Your task to perform on an android device: add a contact Image 0: 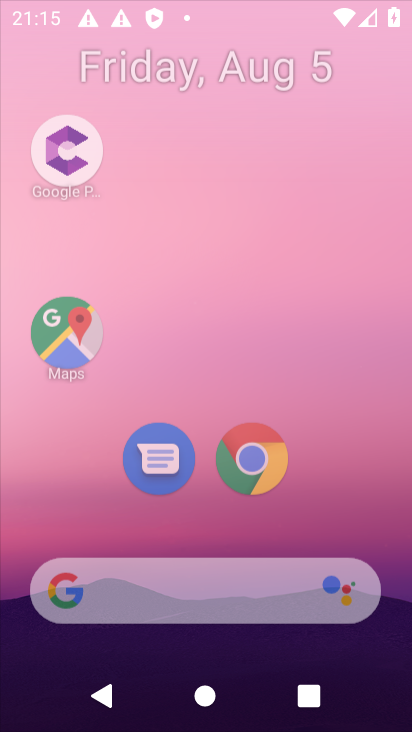
Step 0: click (218, 556)
Your task to perform on an android device: add a contact Image 1: 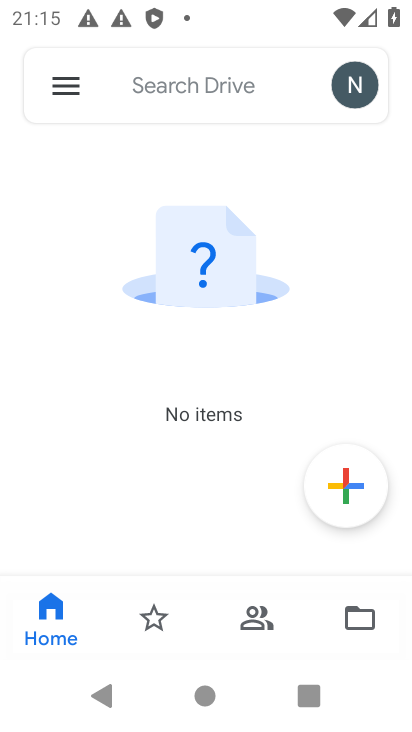
Step 1: press back button
Your task to perform on an android device: add a contact Image 2: 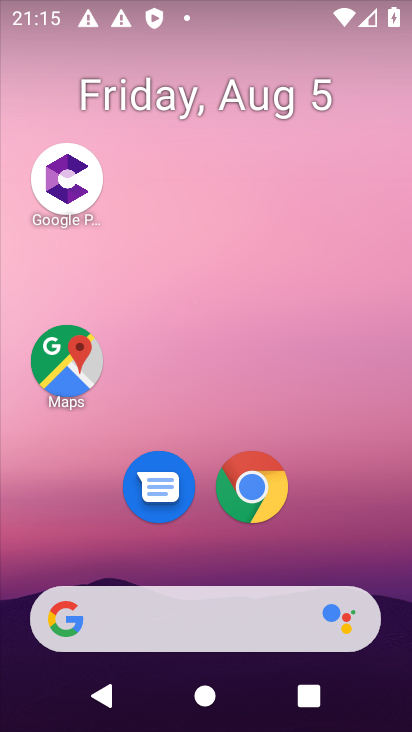
Step 2: drag from (247, 572) to (131, 16)
Your task to perform on an android device: add a contact Image 3: 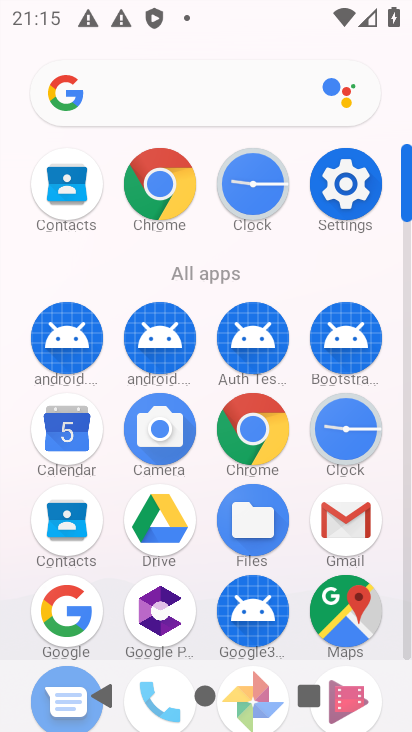
Step 3: drag from (128, 573) to (73, 57)
Your task to perform on an android device: add a contact Image 4: 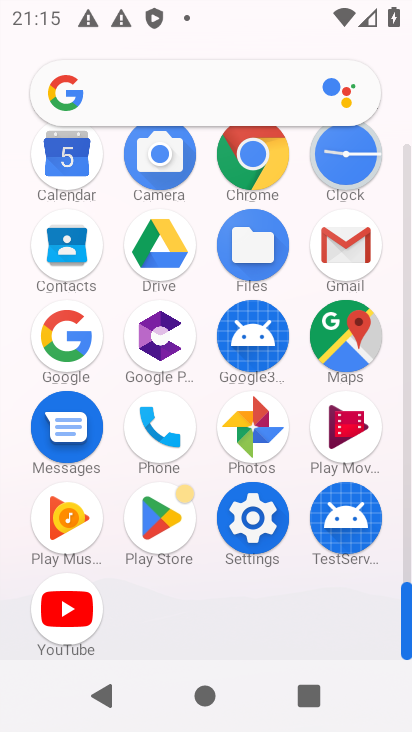
Step 4: click (166, 411)
Your task to perform on an android device: add a contact Image 5: 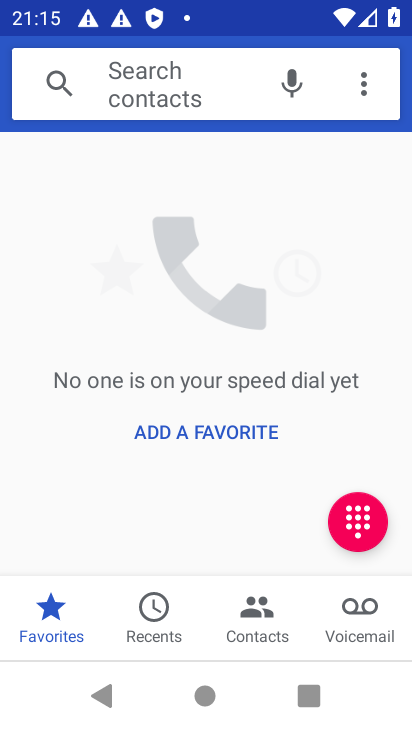
Step 5: click (265, 624)
Your task to perform on an android device: add a contact Image 6: 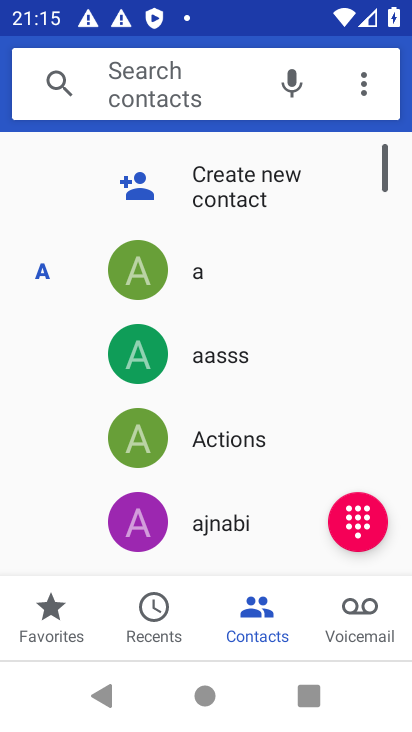
Step 6: click (214, 208)
Your task to perform on an android device: add a contact Image 7: 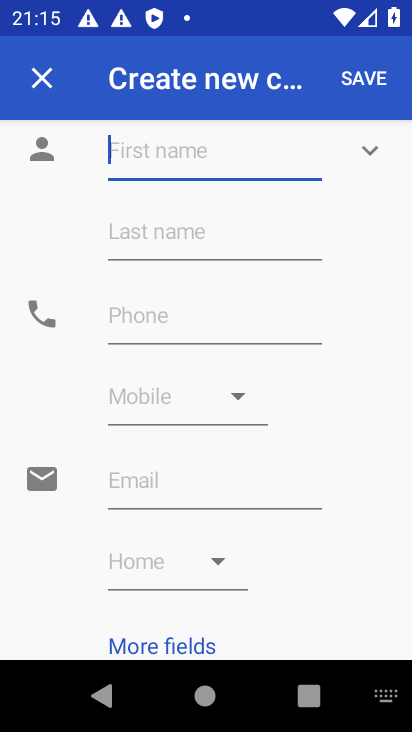
Step 7: type "j"
Your task to perform on an android device: add a contact Image 8: 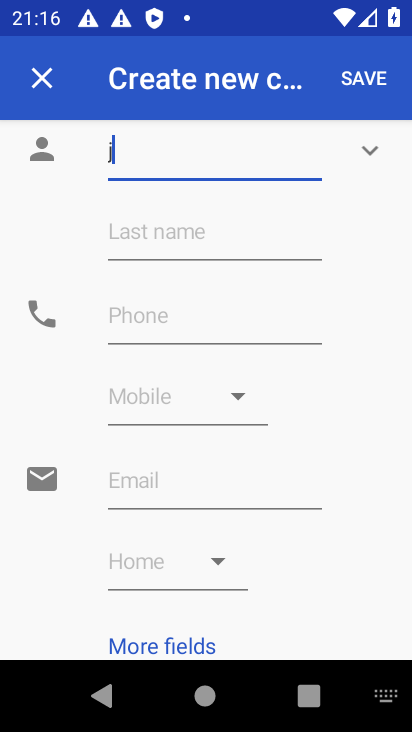
Step 8: click (195, 317)
Your task to perform on an android device: add a contact Image 9: 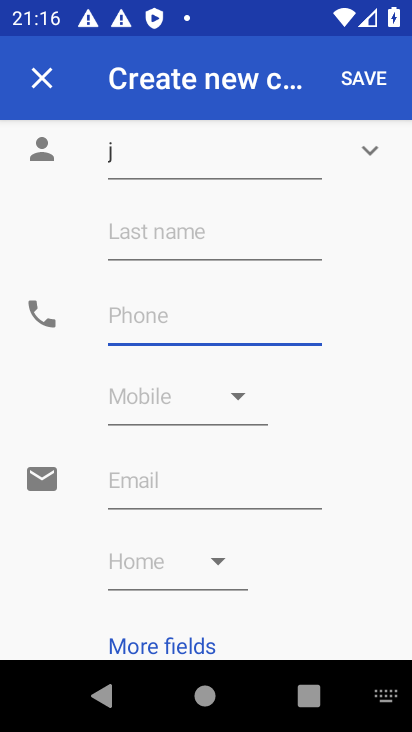
Step 9: type "7890"
Your task to perform on an android device: add a contact Image 10: 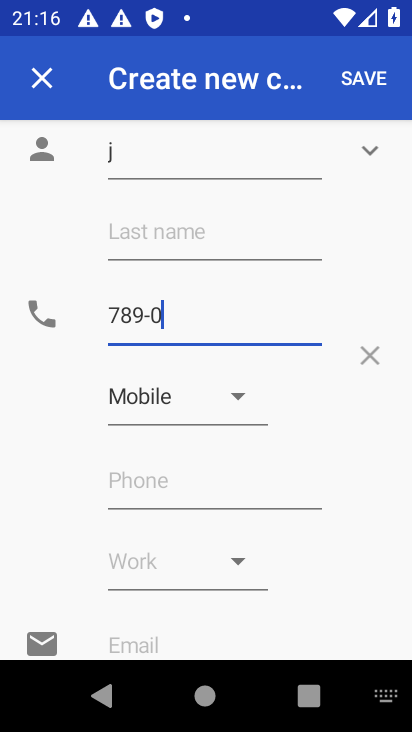
Step 10: click (362, 86)
Your task to perform on an android device: add a contact Image 11: 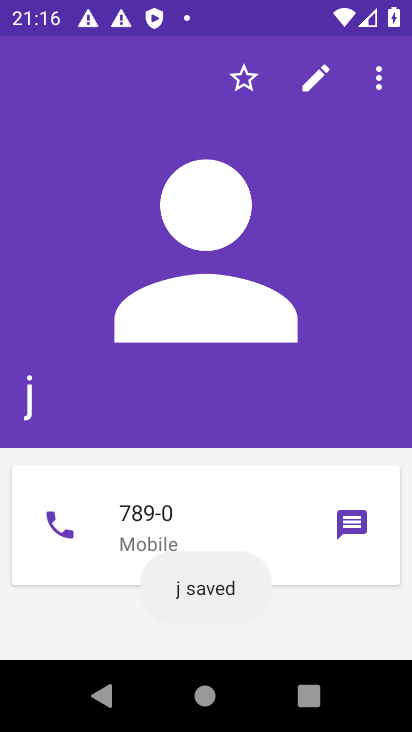
Step 11: task complete